Your task to perform on an android device: Show me productivity apps on the Play Store Image 0: 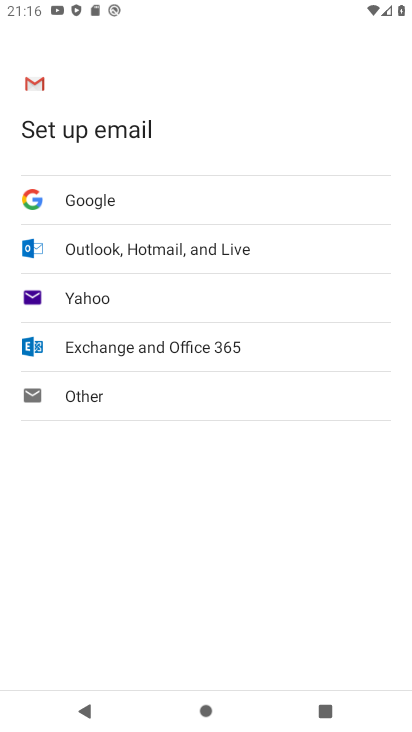
Step 0: press home button
Your task to perform on an android device: Show me productivity apps on the Play Store Image 1: 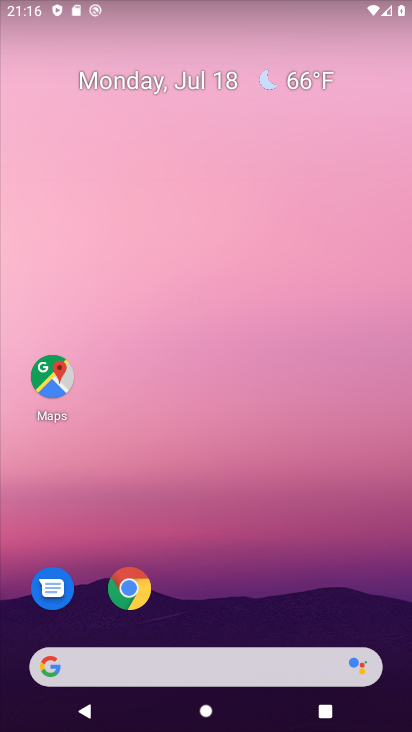
Step 1: drag from (307, 635) to (276, 106)
Your task to perform on an android device: Show me productivity apps on the Play Store Image 2: 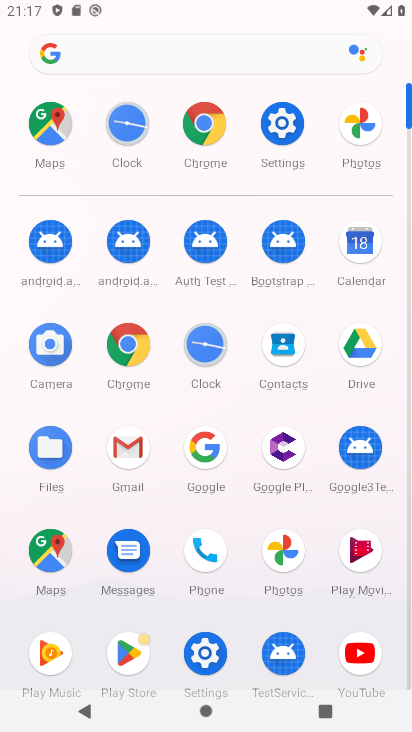
Step 2: click (109, 658)
Your task to perform on an android device: Show me productivity apps on the Play Store Image 3: 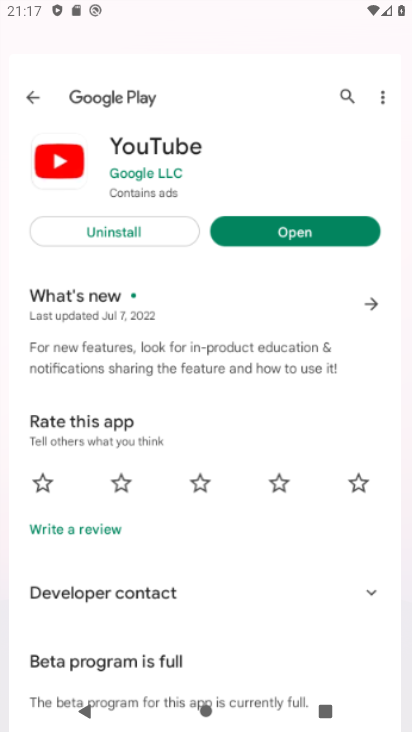
Step 3: drag from (251, 712) to (109, 658)
Your task to perform on an android device: Show me productivity apps on the Play Store Image 4: 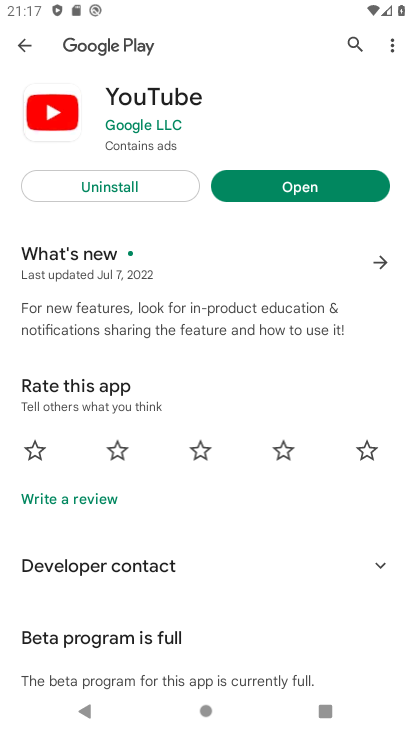
Step 4: click (351, 44)
Your task to perform on an android device: Show me productivity apps on the Play Store Image 5: 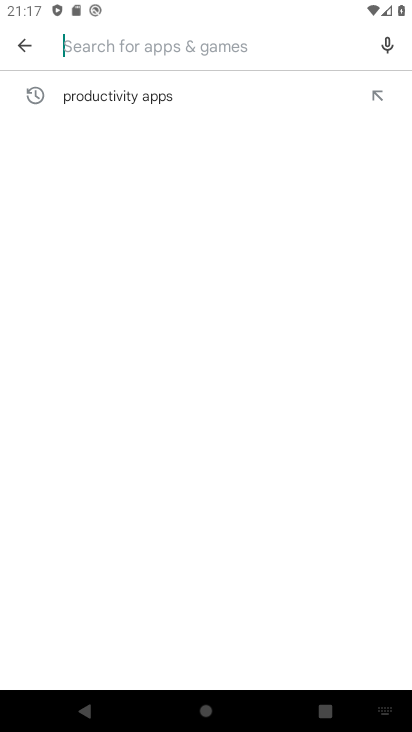
Step 5: click (216, 92)
Your task to perform on an android device: Show me productivity apps on the Play Store Image 6: 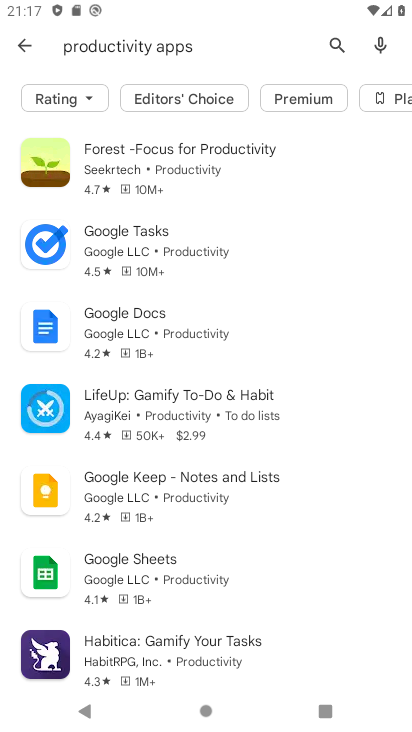
Step 6: task complete